Your task to perform on an android device: open sync settings in chrome Image 0: 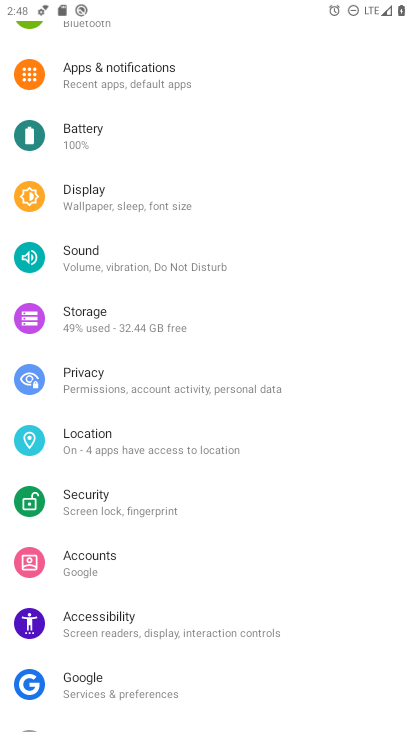
Step 0: press home button
Your task to perform on an android device: open sync settings in chrome Image 1: 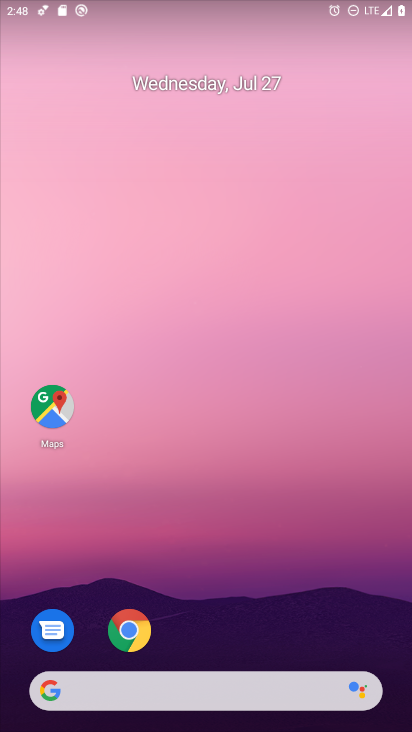
Step 1: click (130, 634)
Your task to perform on an android device: open sync settings in chrome Image 2: 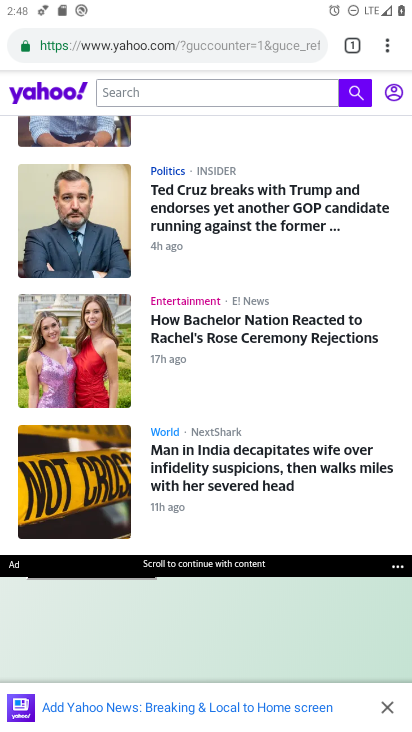
Step 2: click (391, 52)
Your task to perform on an android device: open sync settings in chrome Image 3: 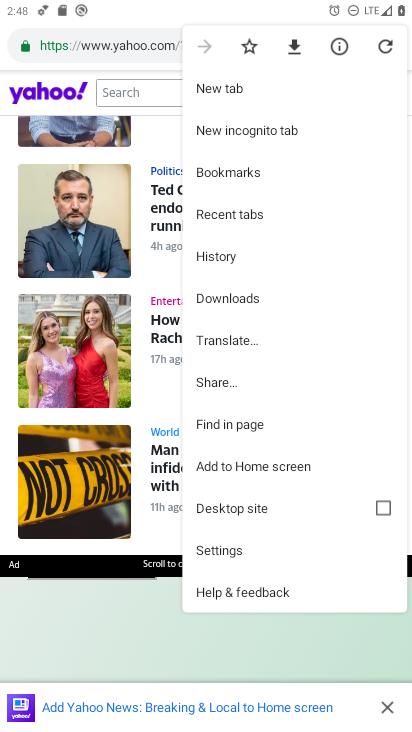
Step 3: click (216, 551)
Your task to perform on an android device: open sync settings in chrome Image 4: 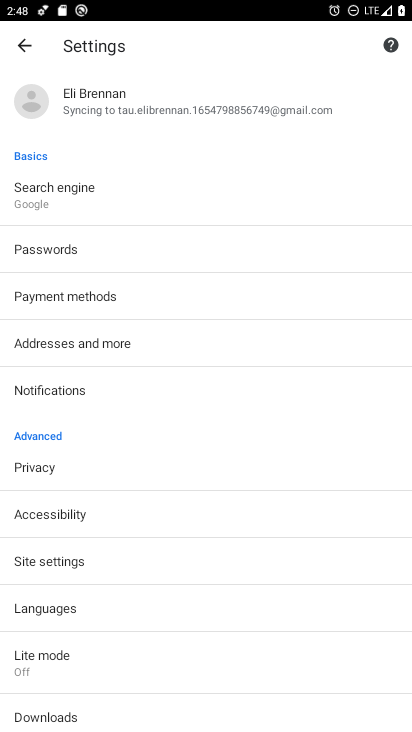
Step 4: click (99, 101)
Your task to perform on an android device: open sync settings in chrome Image 5: 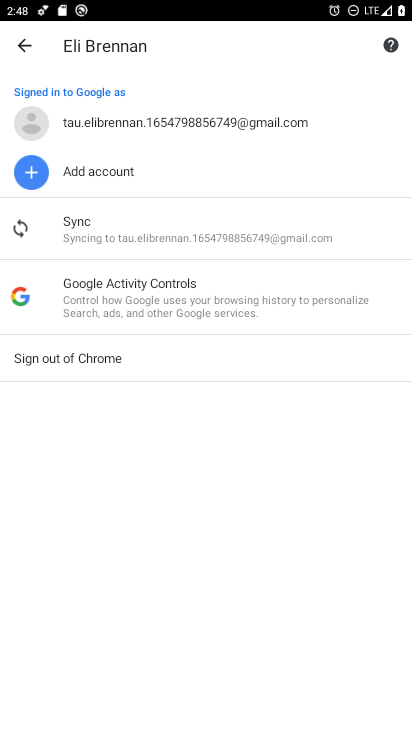
Step 5: click (79, 230)
Your task to perform on an android device: open sync settings in chrome Image 6: 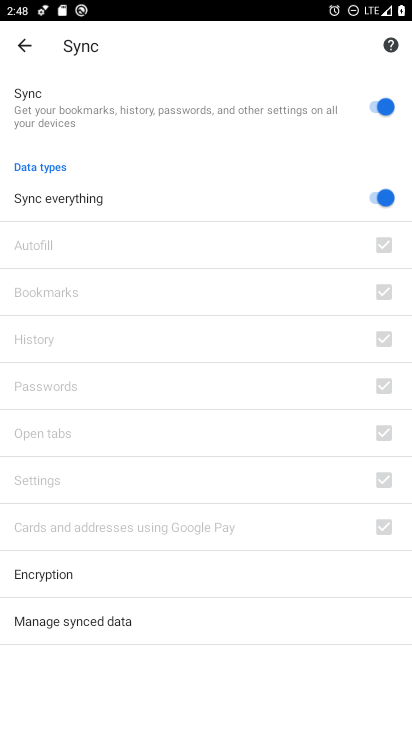
Step 6: task complete